Your task to perform on an android device: toggle wifi Image 0: 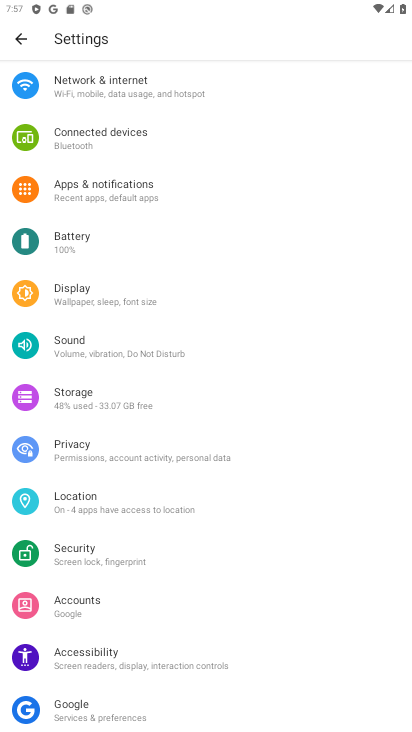
Step 0: press home button
Your task to perform on an android device: toggle wifi Image 1: 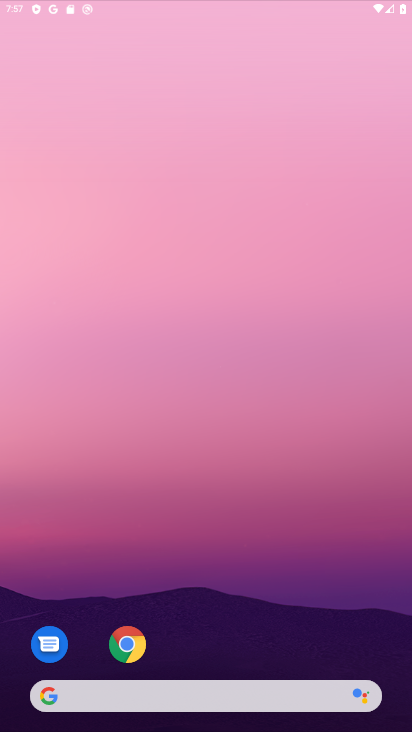
Step 1: drag from (303, 5) to (265, 477)
Your task to perform on an android device: toggle wifi Image 2: 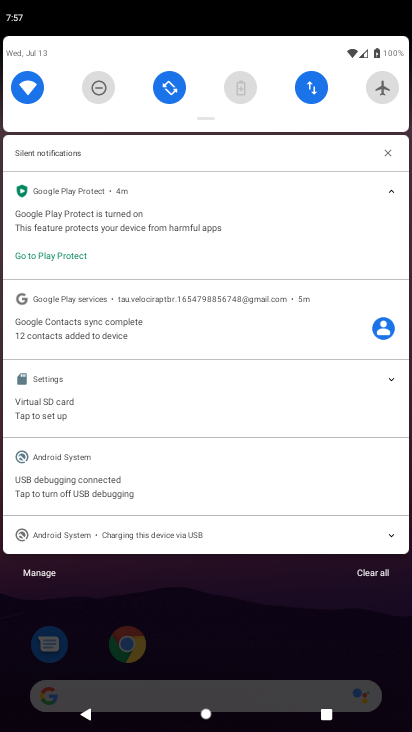
Step 2: click (30, 92)
Your task to perform on an android device: toggle wifi Image 3: 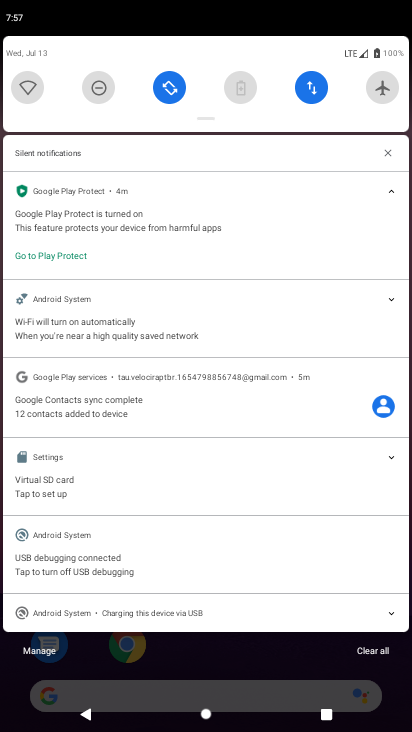
Step 3: task complete